Your task to perform on an android device: turn off notifications settings in the gmail app Image 0: 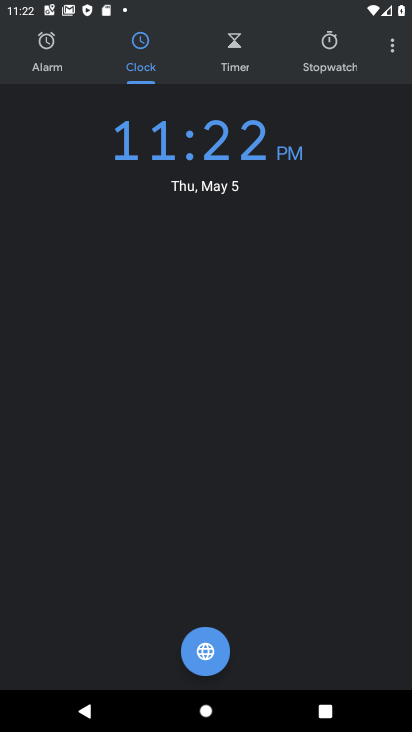
Step 0: press home button
Your task to perform on an android device: turn off notifications settings in the gmail app Image 1: 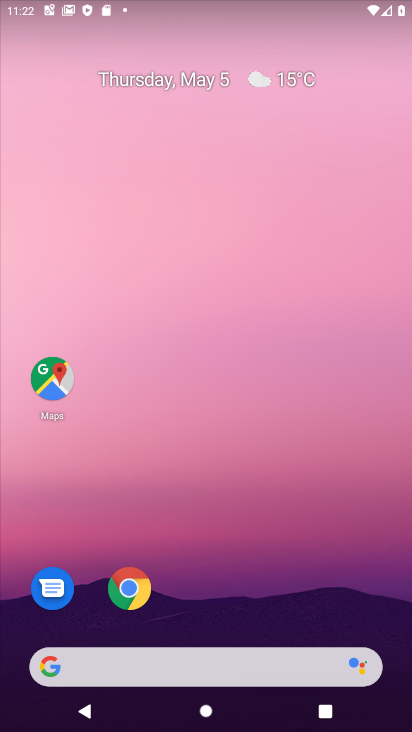
Step 1: drag from (229, 545) to (268, 104)
Your task to perform on an android device: turn off notifications settings in the gmail app Image 2: 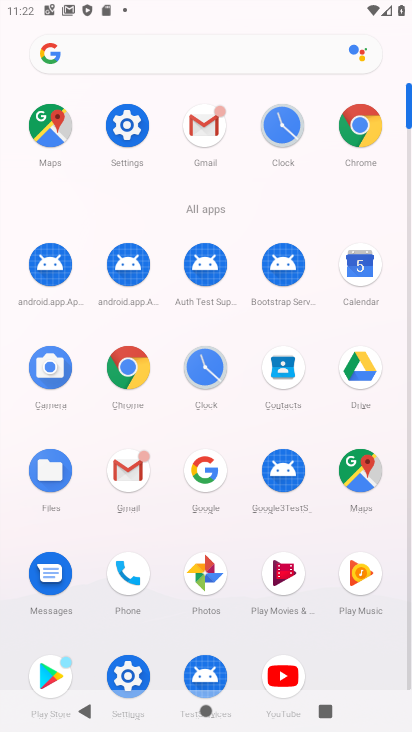
Step 2: click (206, 136)
Your task to perform on an android device: turn off notifications settings in the gmail app Image 3: 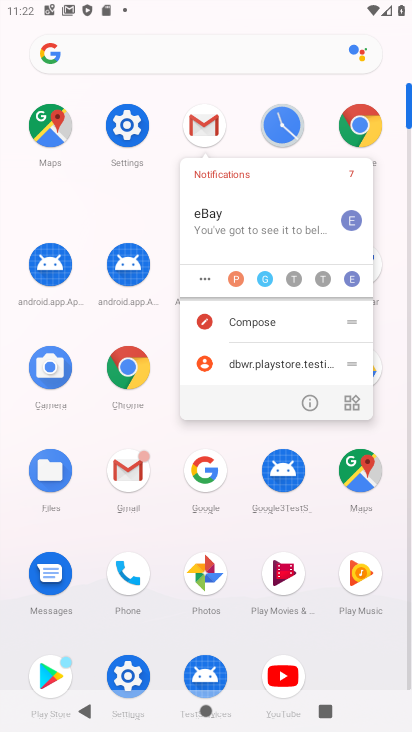
Step 3: click (207, 117)
Your task to perform on an android device: turn off notifications settings in the gmail app Image 4: 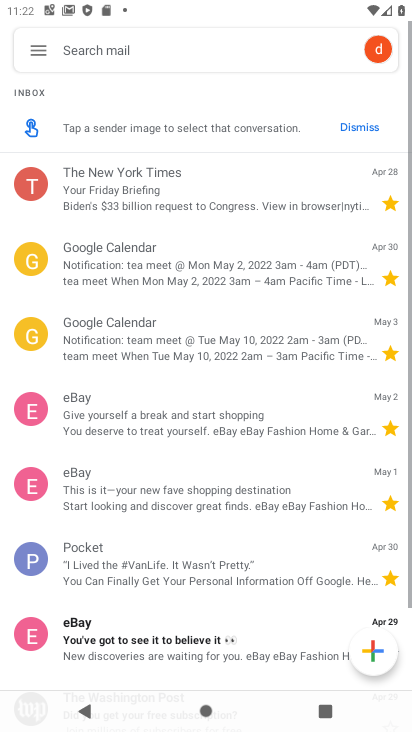
Step 4: click (35, 49)
Your task to perform on an android device: turn off notifications settings in the gmail app Image 5: 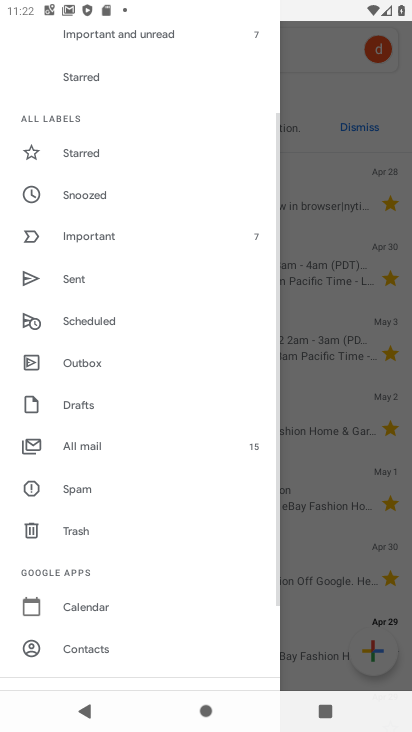
Step 5: drag from (145, 605) to (173, 278)
Your task to perform on an android device: turn off notifications settings in the gmail app Image 6: 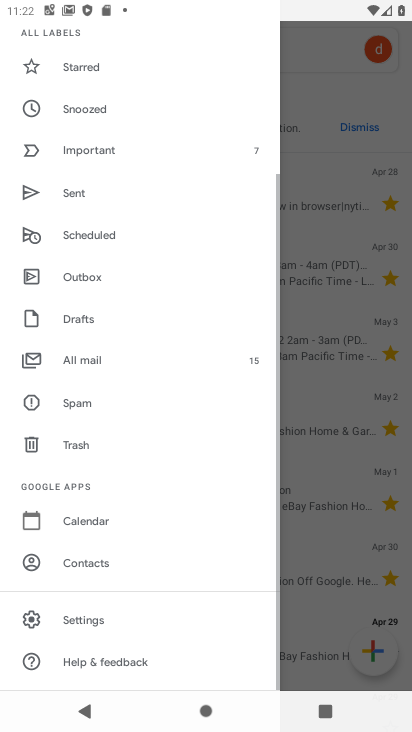
Step 6: click (87, 625)
Your task to perform on an android device: turn off notifications settings in the gmail app Image 7: 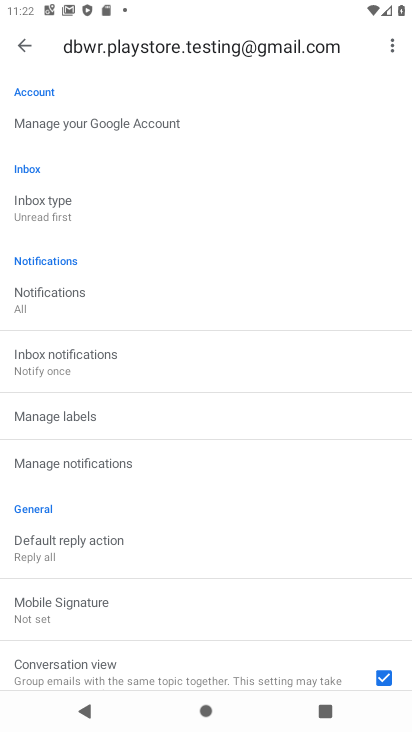
Step 7: click (108, 463)
Your task to perform on an android device: turn off notifications settings in the gmail app Image 8: 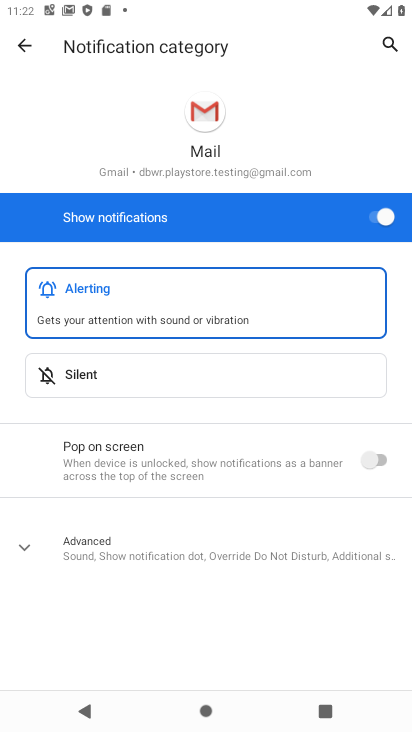
Step 8: click (374, 215)
Your task to perform on an android device: turn off notifications settings in the gmail app Image 9: 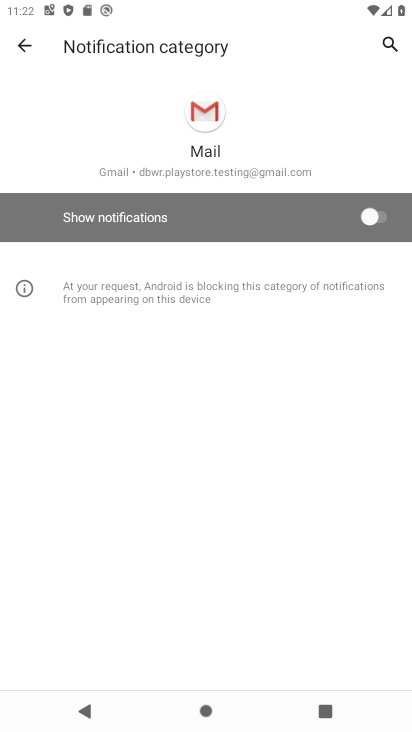
Step 9: task complete